Your task to perform on an android device: all mails in gmail Image 0: 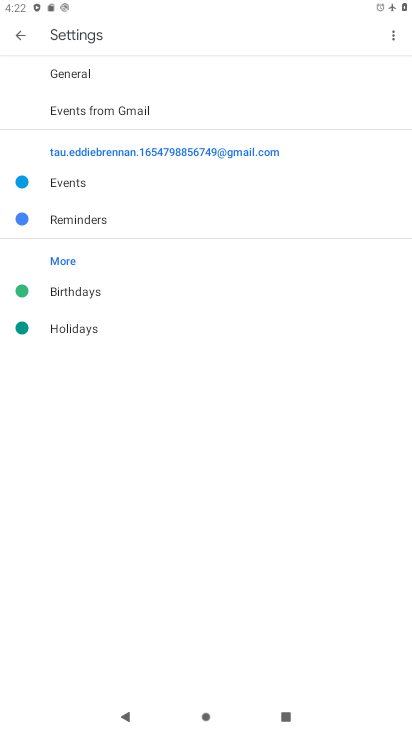
Step 0: press home button
Your task to perform on an android device: all mails in gmail Image 1: 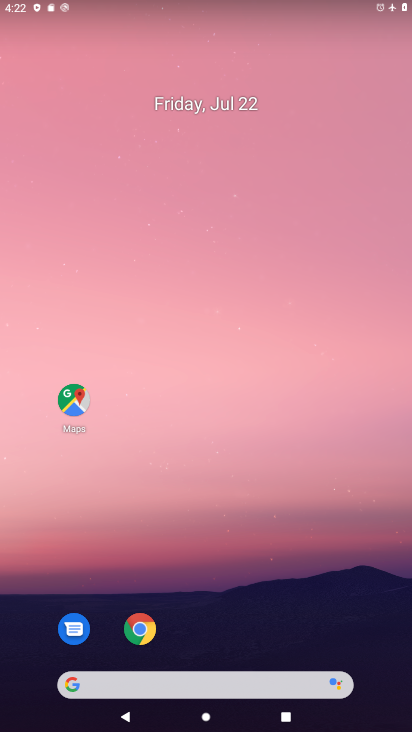
Step 1: drag from (281, 585) to (201, 143)
Your task to perform on an android device: all mails in gmail Image 2: 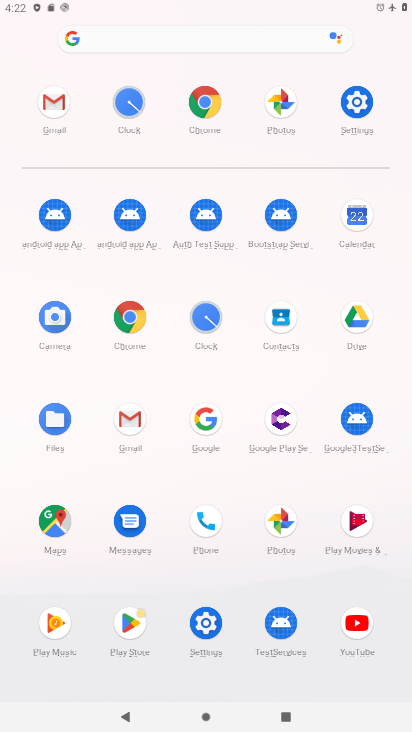
Step 2: click (60, 110)
Your task to perform on an android device: all mails in gmail Image 3: 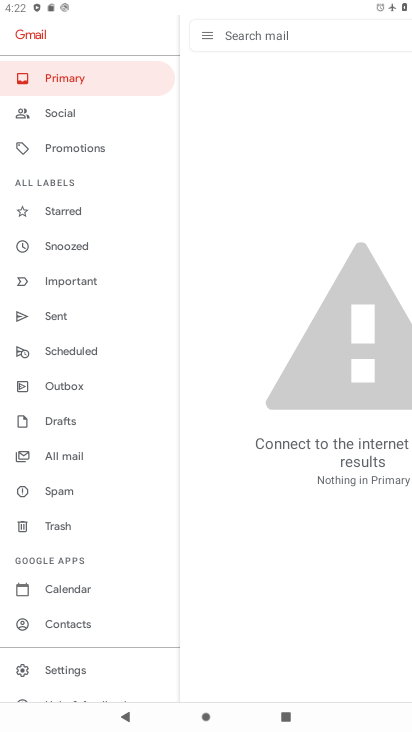
Step 3: click (65, 459)
Your task to perform on an android device: all mails in gmail Image 4: 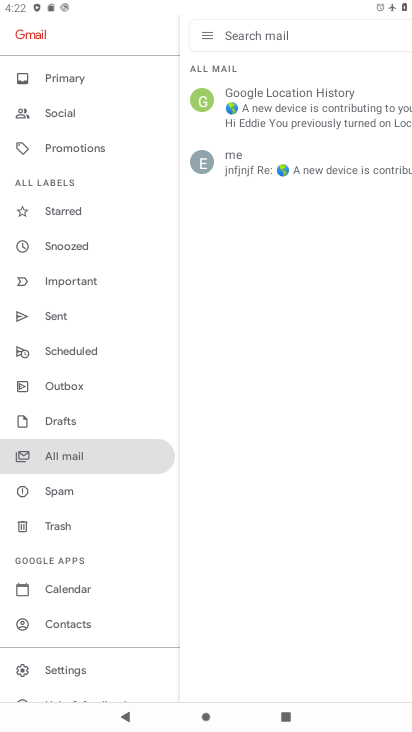
Step 4: task complete